Your task to perform on an android device: Open battery settings Image 0: 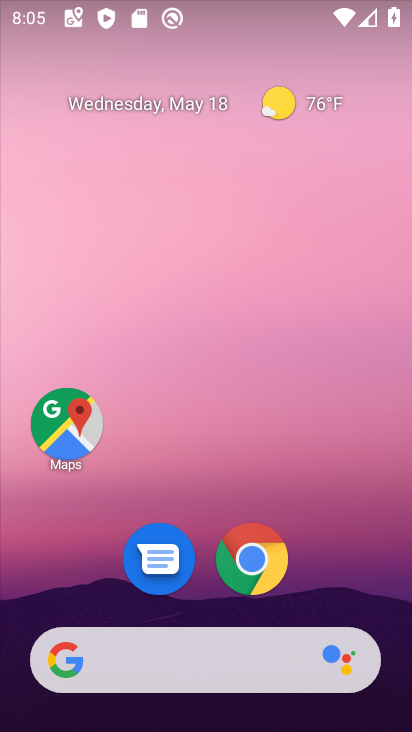
Step 0: drag from (231, 610) to (258, 4)
Your task to perform on an android device: Open battery settings Image 1: 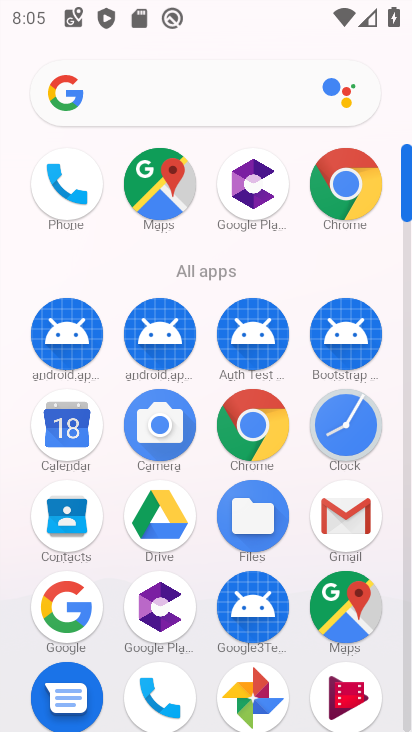
Step 1: drag from (117, 652) to (103, 111)
Your task to perform on an android device: Open battery settings Image 2: 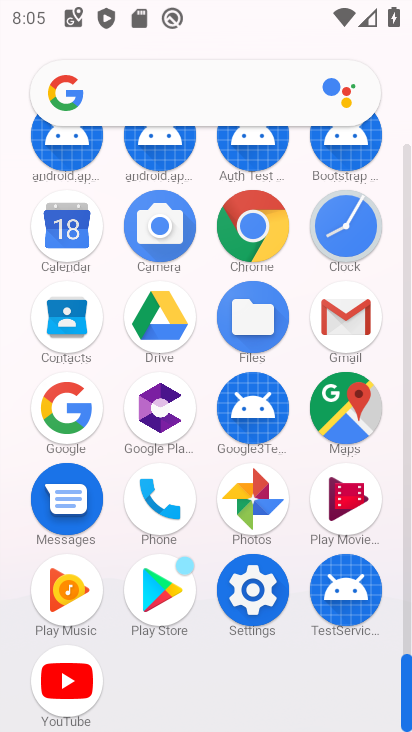
Step 2: click (246, 585)
Your task to perform on an android device: Open battery settings Image 3: 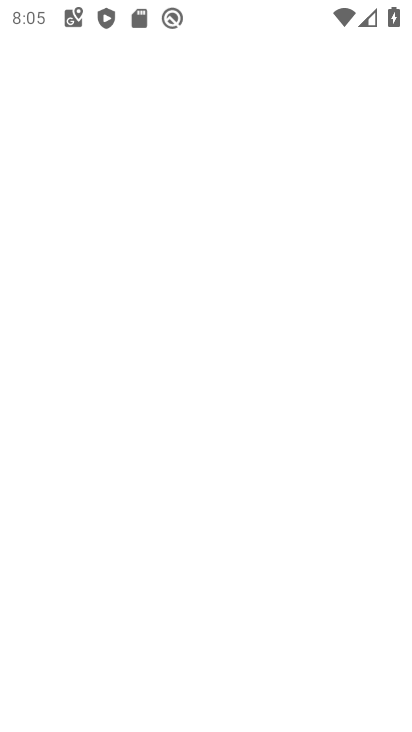
Step 3: drag from (246, 585) to (122, 82)
Your task to perform on an android device: Open battery settings Image 4: 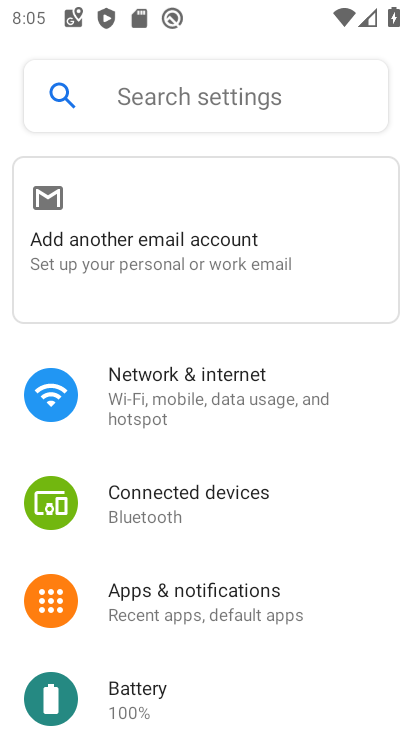
Step 4: click (148, 700)
Your task to perform on an android device: Open battery settings Image 5: 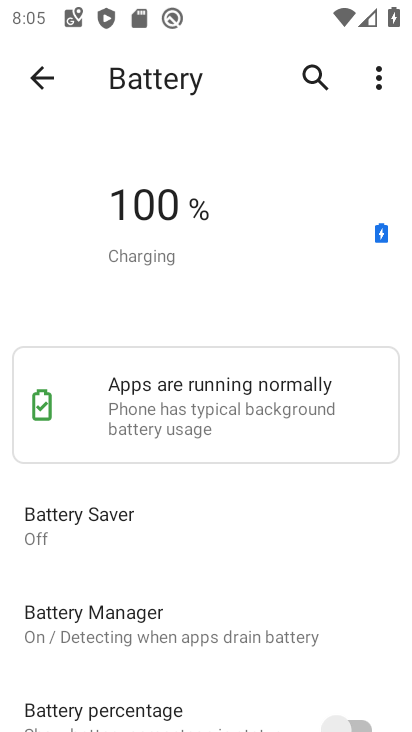
Step 5: task complete